Your task to perform on an android device: turn on showing notifications on the lock screen Image 0: 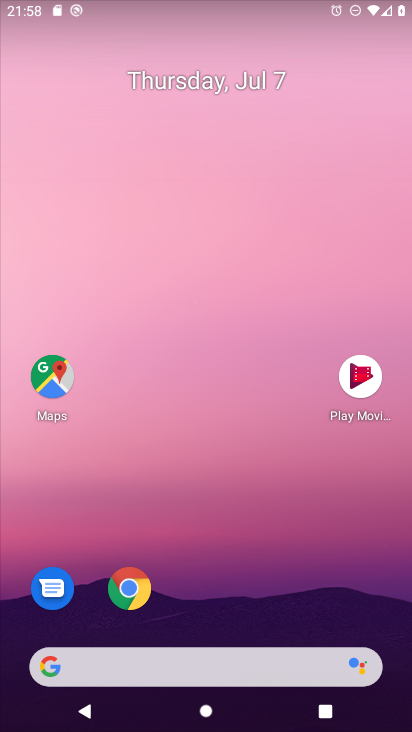
Step 0: drag from (239, 572) to (248, 464)
Your task to perform on an android device: turn on showing notifications on the lock screen Image 1: 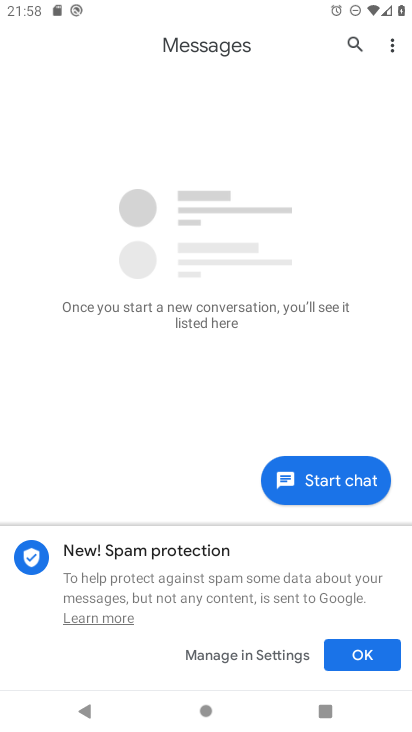
Step 1: press home button
Your task to perform on an android device: turn on showing notifications on the lock screen Image 2: 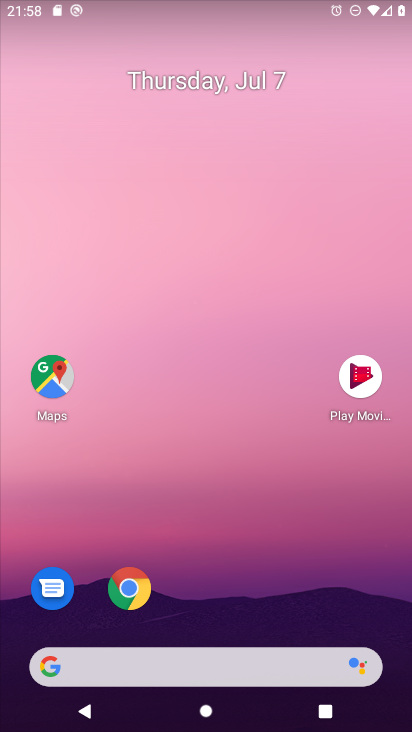
Step 2: drag from (222, 658) to (305, 181)
Your task to perform on an android device: turn on showing notifications on the lock screen Image 3: 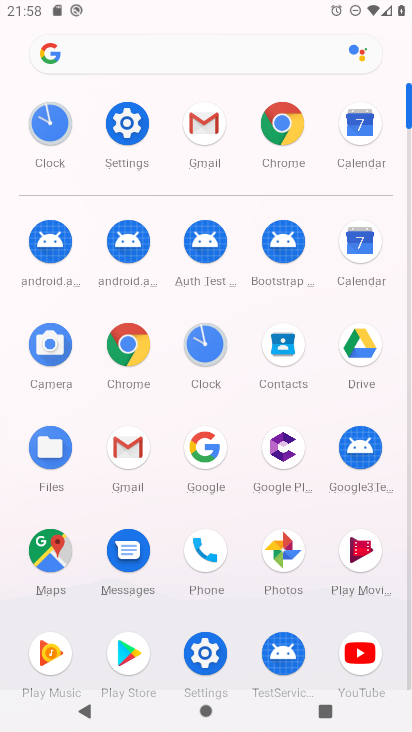
Step 3: click (134, 117)
Your task to perform on an android device: turn on showing notifications on the lock screen Image 4: 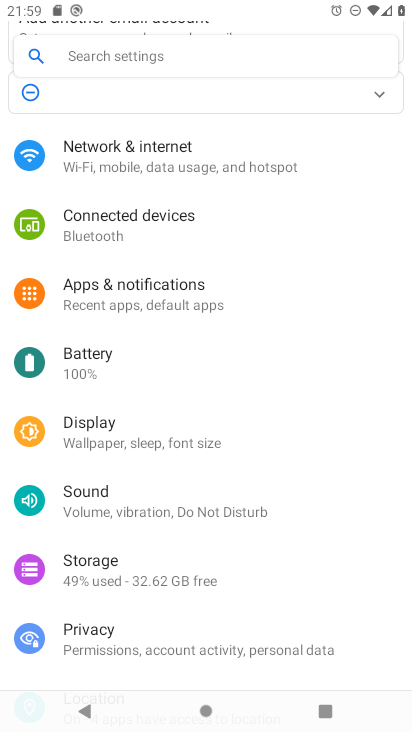
Step 4: click (126, 302)
Your task to perform on an android device: turn on showing notifications on the lock screen Image 5: 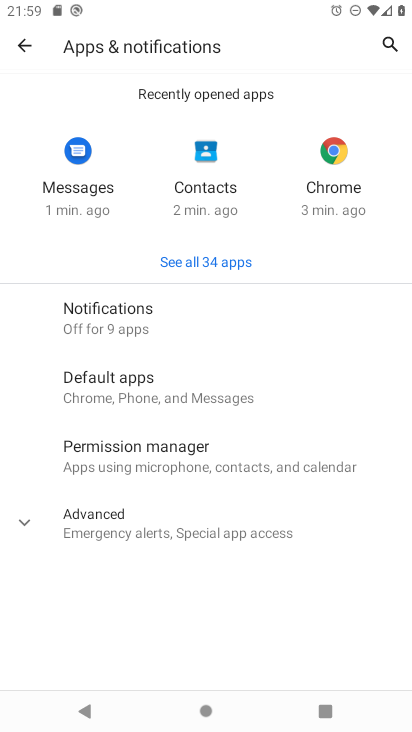
Step 5: click (165, 313)
Your task to perform on an android device: turn on showing notifications on the lock screen Image 6: 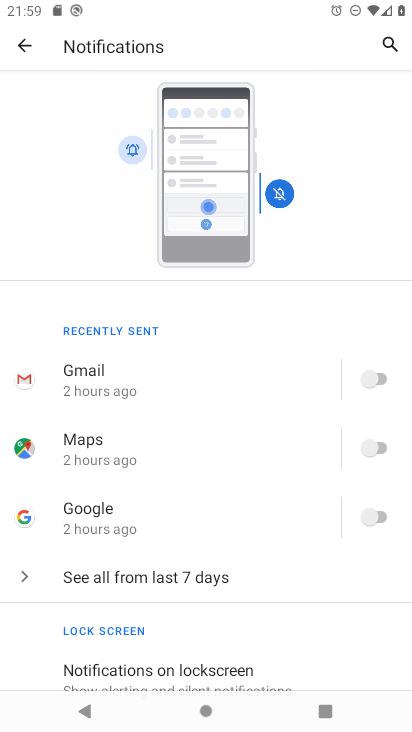
Step 6: drag from (179, 633) to (185, 380)
Your task to perform on an android device: turn on showing notifications on the lock screen Image 7: 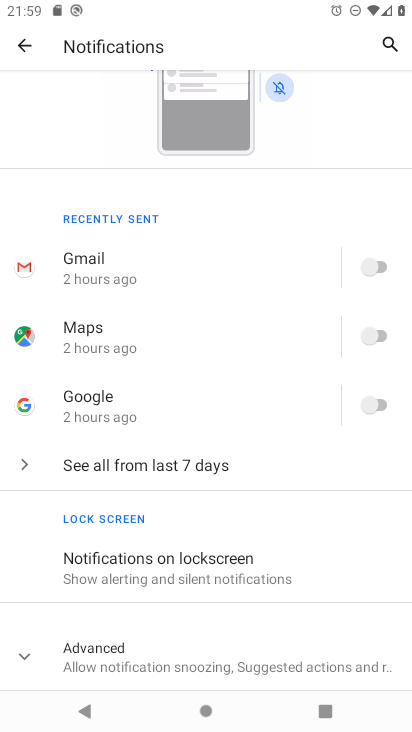
Step 7: click (158, 616)
Your task to perform on an android device: turn on showing notifications on the lock screen Image 8: 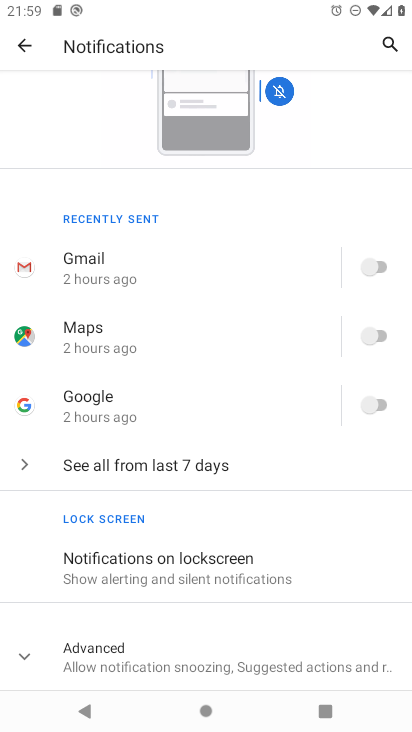
Step 8: drag from (190, 613) to (211, 313)
Your task to perform on an android device: turn on showing notifications on the lock screen Image 9: 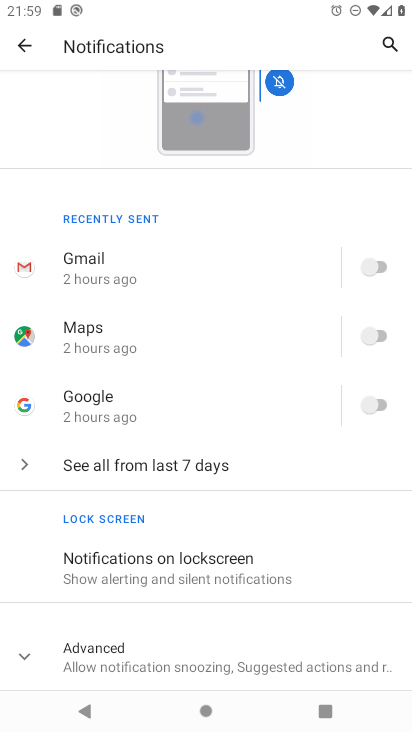
Step 9: click (185, 589)
Your task to perform on an android device: turn on showing notifications on the lock screen Image 10: 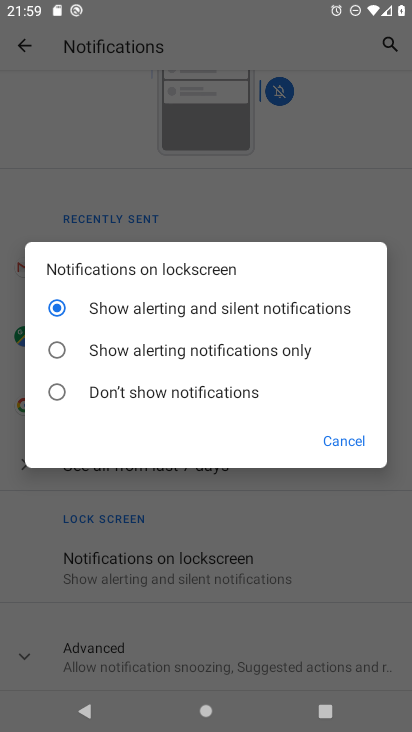
Step 10: task complete